Your task to perform on an android device: turn on the 12-hour format for clock Image 0: 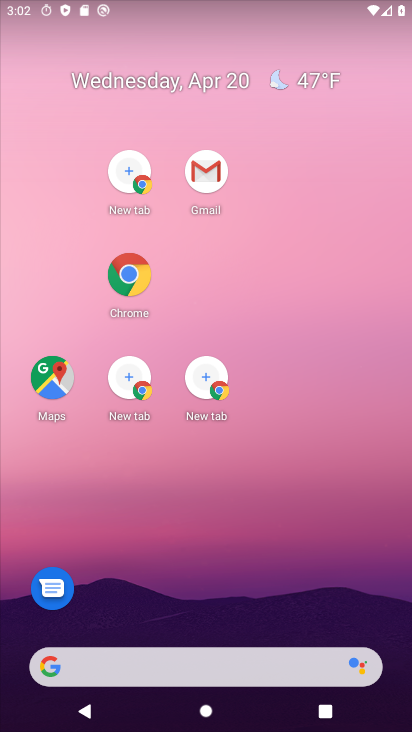
Step 0: drag from (245, 575) to (196, 307)
Your task to perform on an android device: turn on the 12-hour format for clock Image 1: 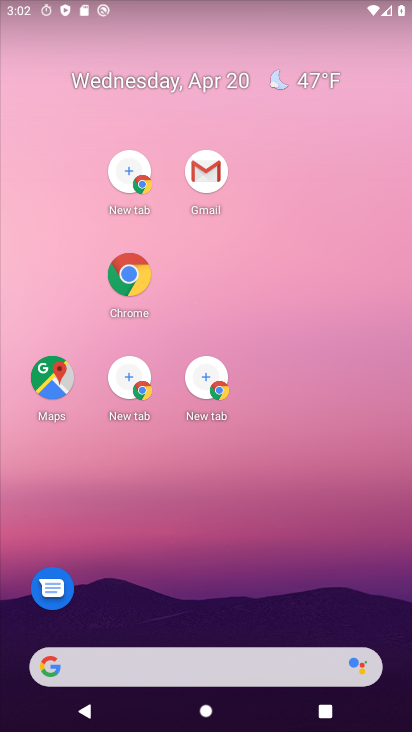
Step 1: click (116, 278)
Your task to perform on an android device: turn on the 12-hour format for clock Image 2: 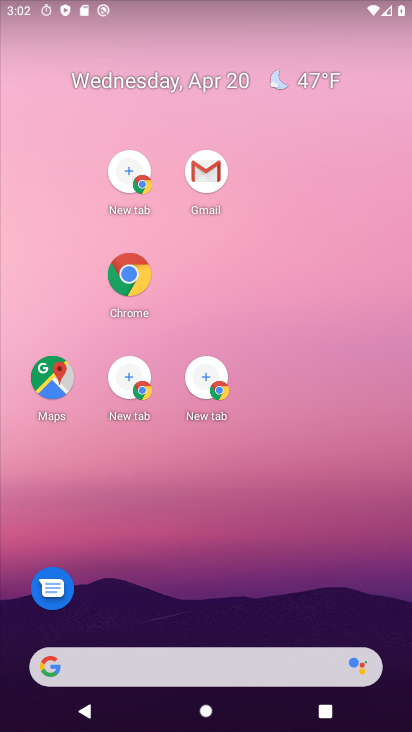
Step 2: click (116, 278)
Your task to perform on an android device: turn on the 12-hour format for clock Image 3: 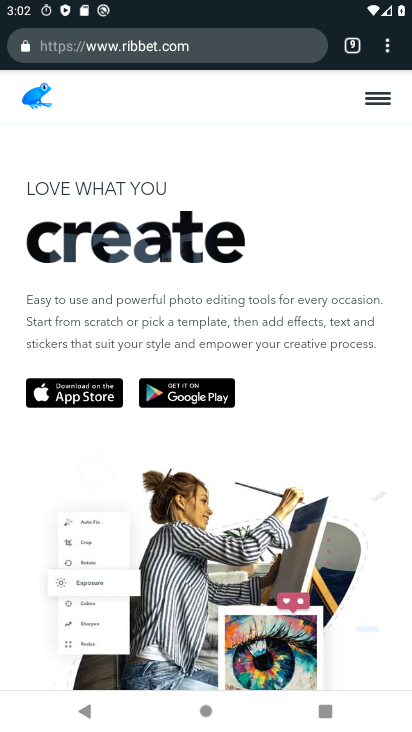
Step 3: drag from (367, 91) to (277, 418)
Your task to perform on an android device: turn on the 12-hour format for clock Image 4: 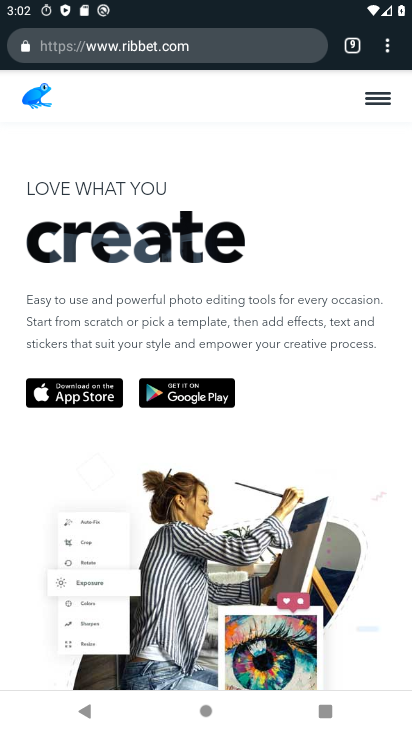
Step 4: click (361, 110)
Your task to perform on an android device: turn on the 12-hour format for clock Image 5: 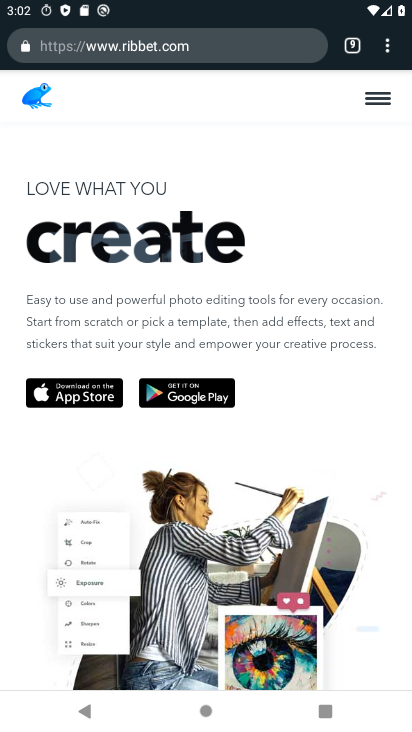
Step 5: click (361, 110)
Your task to perform on an android device: turn on the 12-hour format for clock Image 6: 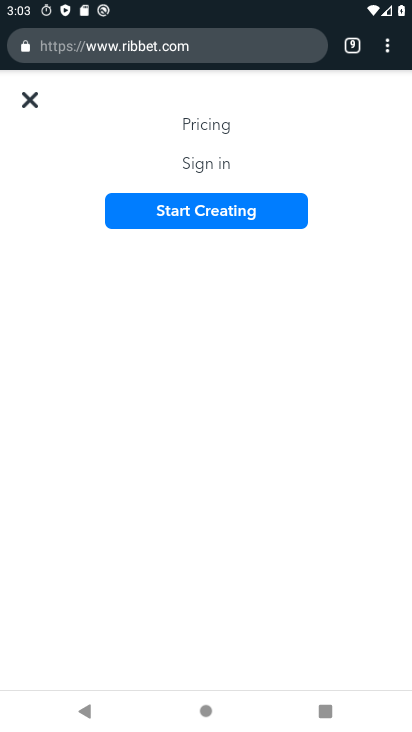
Step 6: click (223, 217)
Your task to perform on an android device: turn on the 12-hour format for clock Image 7: 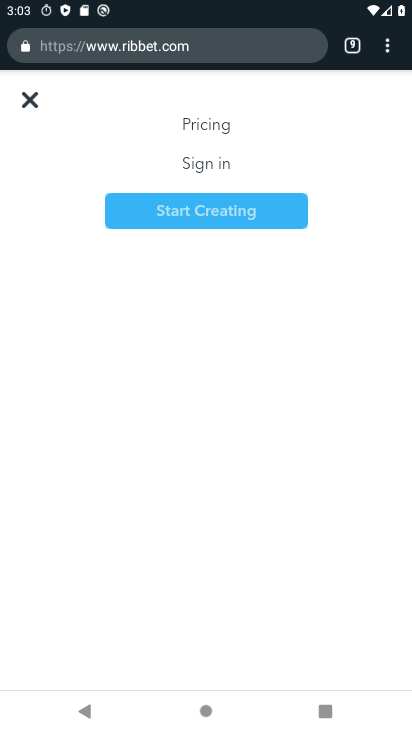
Step 7: click (223, 217)
Your task to perform on an android device: turn on the 12-hour format for clock Image 8: 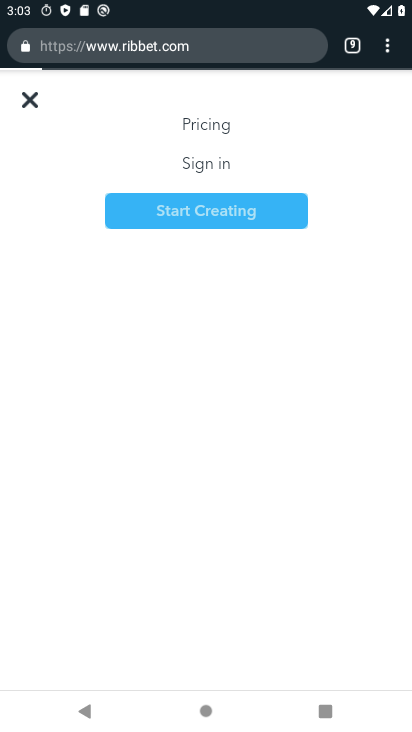
Step 8: click (223, 217)
Your task to perform on an android device: turn on the 12-hour format for clock Image 9: 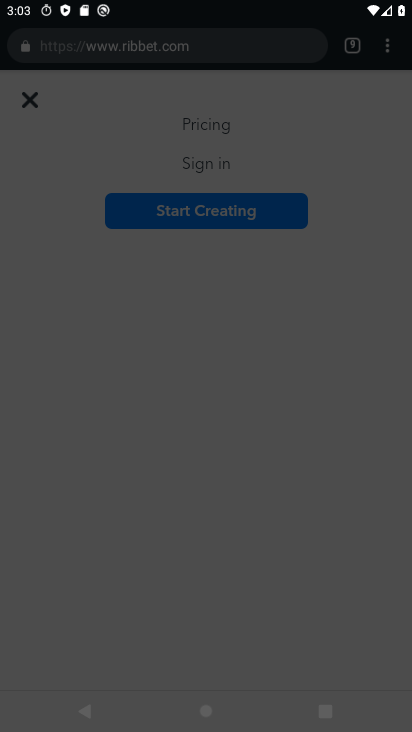
Step 9: click (226, 212)
Your task to perform on an android device: turn on the 12-hour format for clock Image 10: 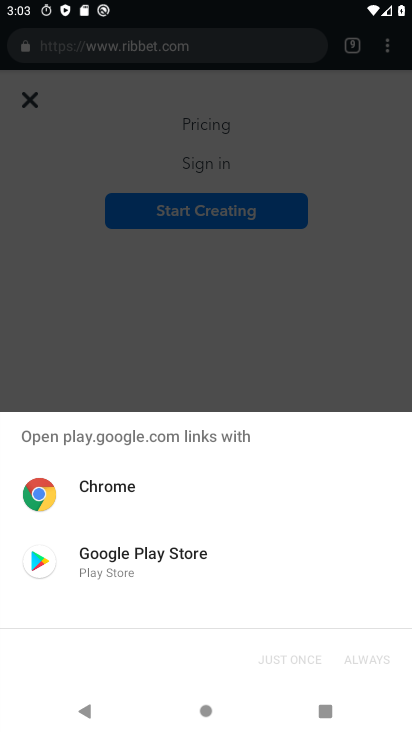
Step 10: click (226, 212)
Your task to perform on an android device: turn on the 12-hour format for clock Image 11: 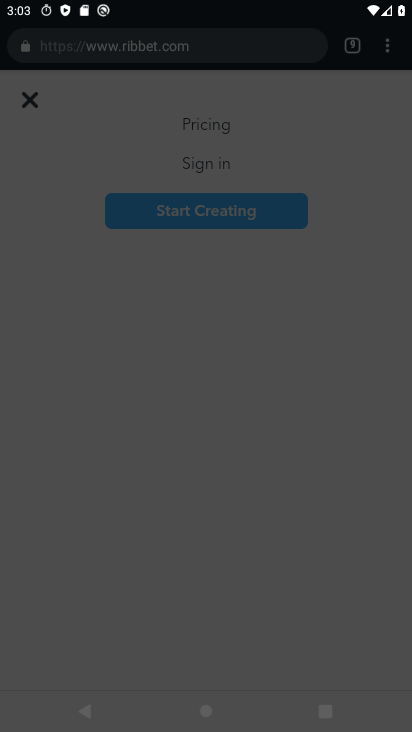
Step 11: click (27, 99)
Your task to perform on an android device: turn on the 12-hour format for clock Image 12: 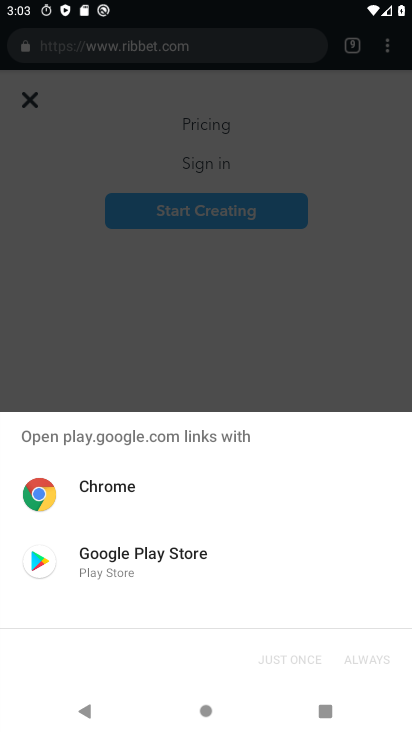
Step 12: click (27, 99)
Your task to perform on an android device: turn on the 12-hour format for clock Image 13: 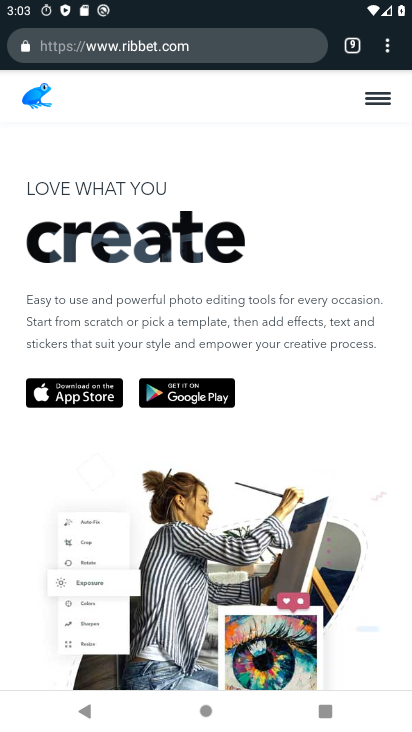
Step 13: click (362, 85)
Your task to perform on an android device: turn on the 12-hour format for clock Image 14: 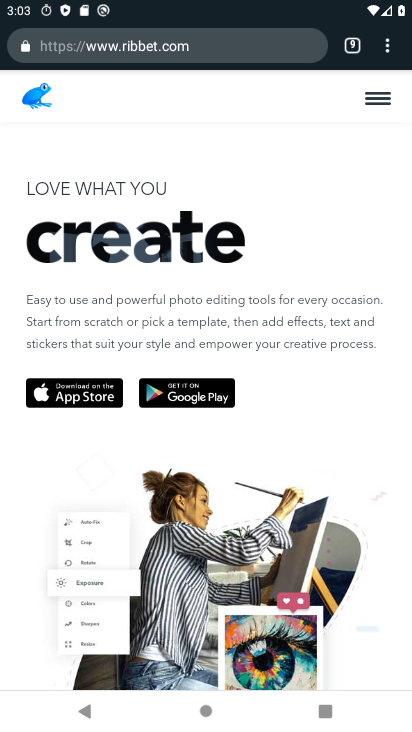
Step 14: click (362, 85)
Your task to perform on an android device: turn on the 12-hour format for clock Image 15: 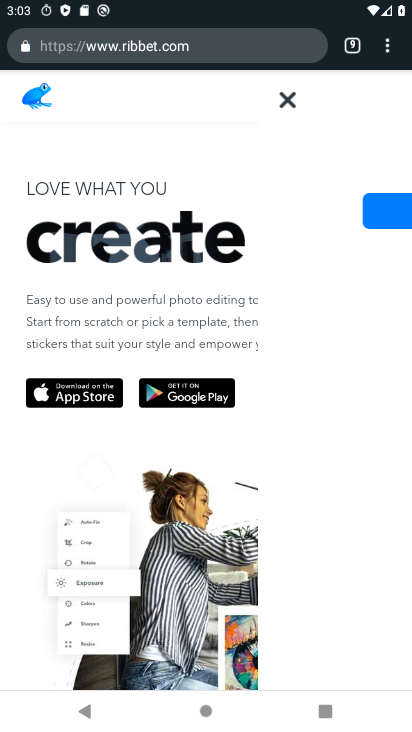
Step 15: click (362, 85)
Your task to perform on an android device: turn on the 12-hour format for clock Image 16: 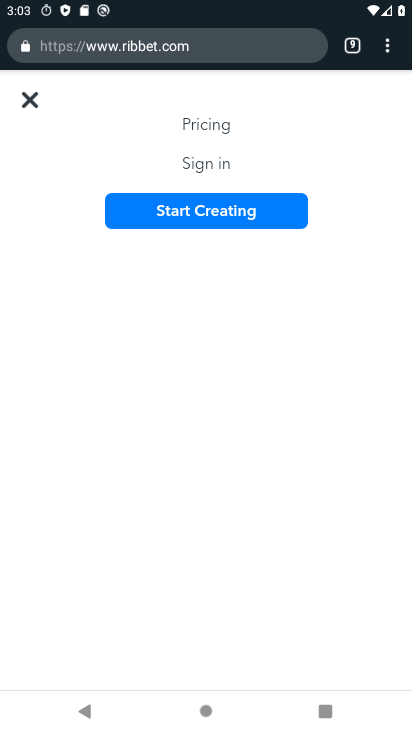
Step 16: click (390, 47)
Your task to perform on an android device: turn on the 12-hour format for clock Image 17: 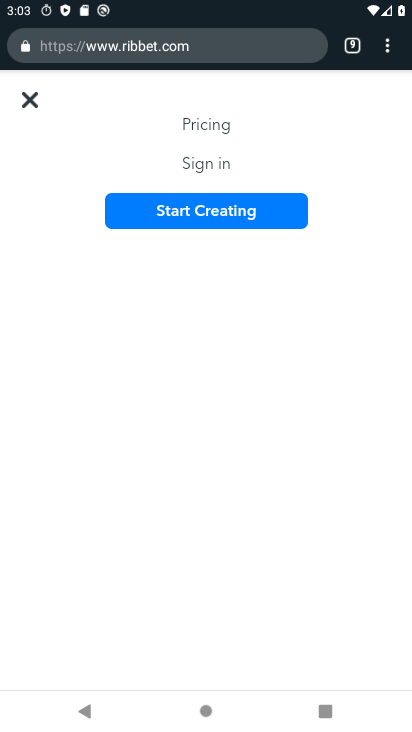
Step 17: click (390, 47)
Your task to perform on an android device: turn on the 12-hour format for clock Image 18: 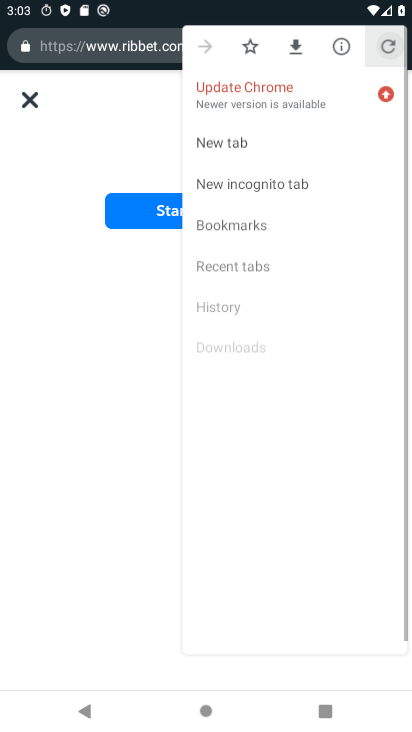
Step 18: click (390, 47)
Your task to perform on an android device: turn on the 12-hour format for clock Image 19: 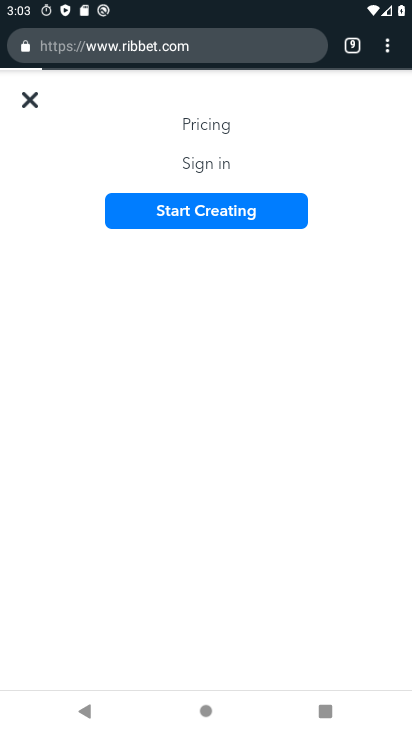
Step 19: click (390, 47)
Your task to perform on an android device: turn on the 12-hour format for clock Image 20: 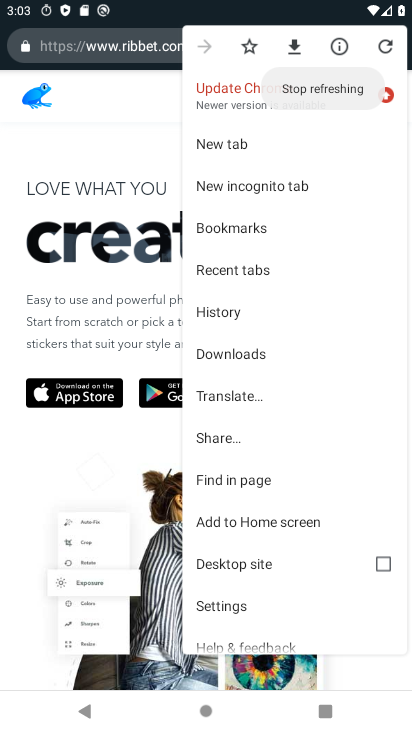
Step 20: click (390, 47)
Your task to perform on an android device: turn on the 12-hour format for clock Image 21: 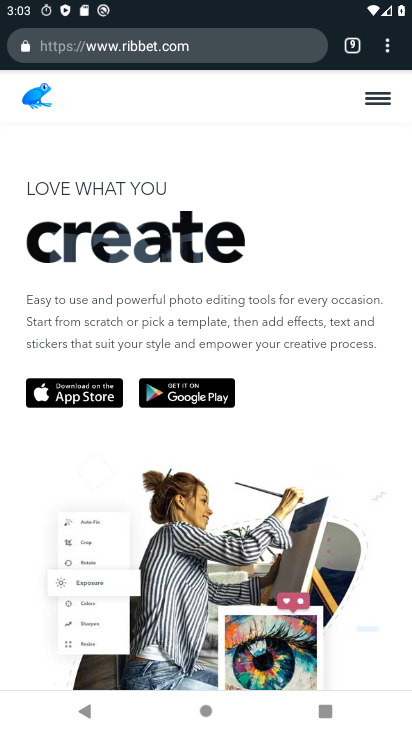
Step 21: press home button
Your task to perform on an android device: turn on the 12-hour format for clock Image 22: 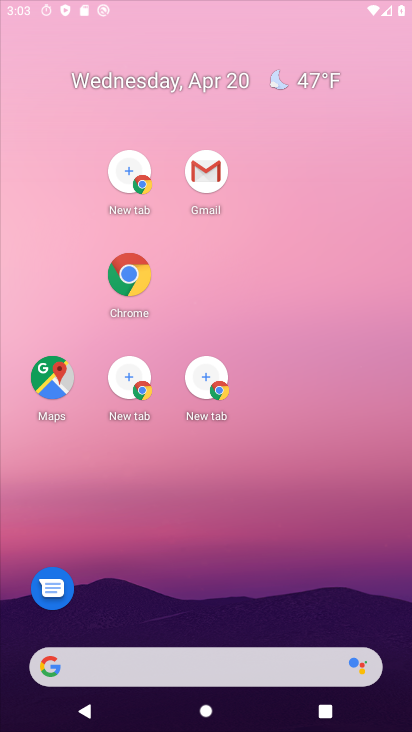
Step 22: press home button
Your task to perform on an android device: turn on the 12-hour format for clock Image 23: 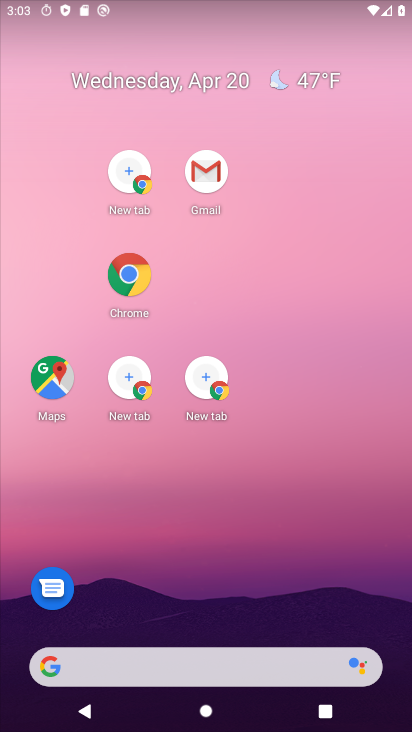
Step 23: press home button
Your task to perform on an android device: turn on the 12-hour format for clock Image 24: 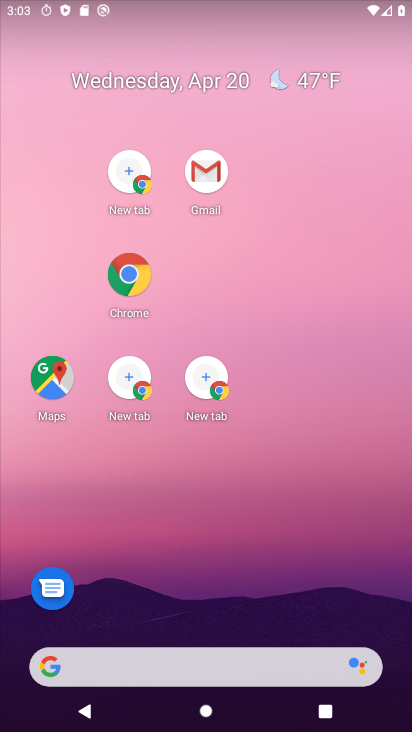
Step 24: drag from (204, 547) to (371, 696)
Your task to perform on an android device: turn on the 12-hour format for clock Image 25: 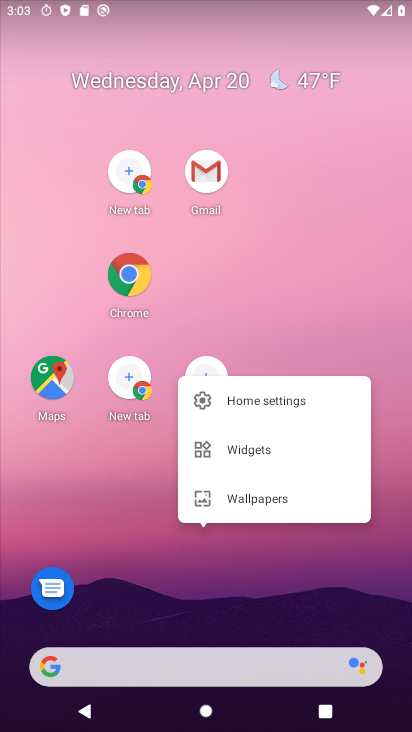
Step 25: click (259, 338)
Your task to perform on an android device: turn on the 12-hour format for clock Image 26: 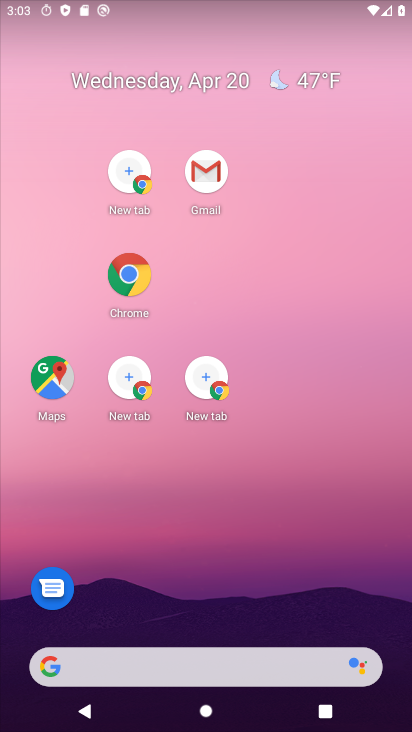
Step 26: drag from (286, 620) to (239, 294)
Your task to perform on an android device: turn on the 12-hour format for clock Image 27: 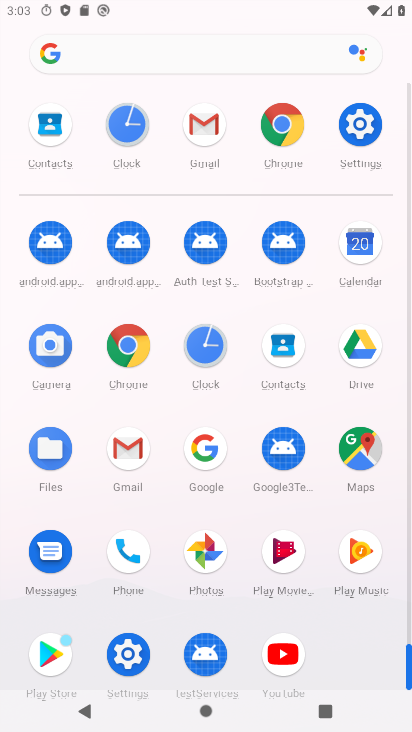
Step 27: click (193, 333)
Your task to perform on an android device: turn on the 12-hour format for clock Image 28: 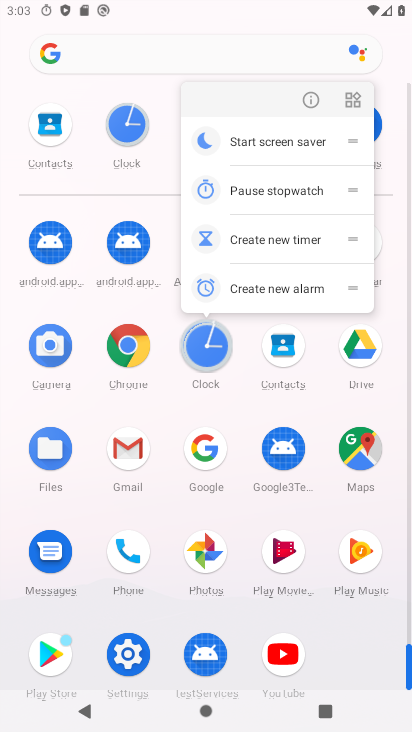
Step 28: click (194, 334)
Your task to perform on an android device: turn on the 12-hour format for clock Image 29: 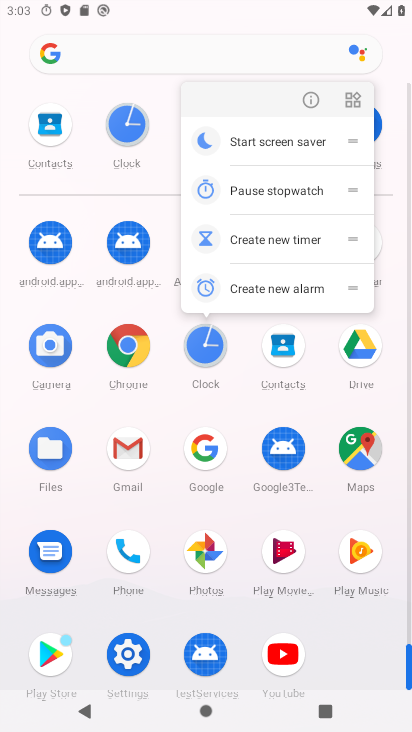
Step 29: click (201, 349)
Your task to perform on an android device: turn on the 12-hour format for clock Image 30: 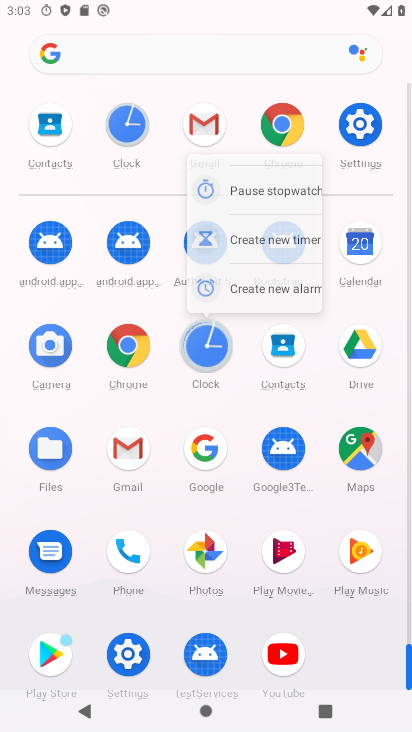
Step 30: click (201, 349)
Your task to perform on an android device: turn on the 12-hour format for clock Image 31: 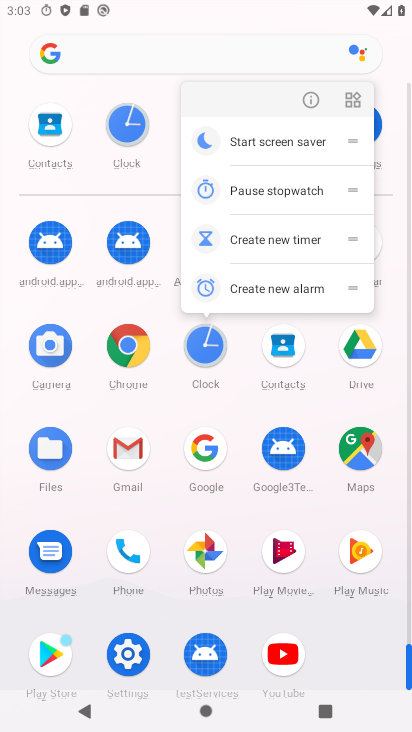
Step 31: click (201, 349)
Your task to perform on an android device: turn on the 12-hour format for clock Image 32: 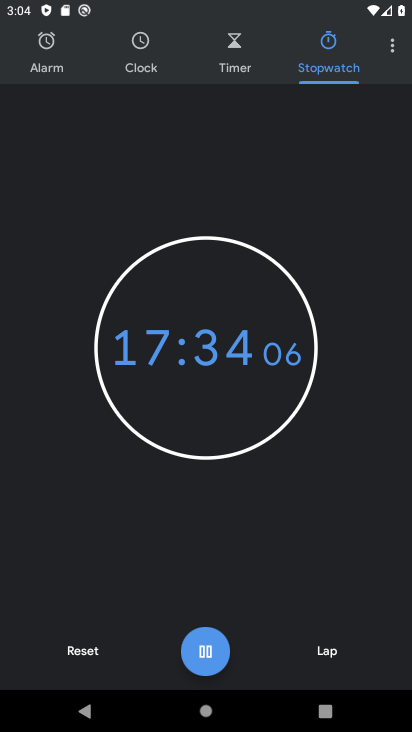
Step 32: click (30, 35)
Your task to perform on an android device: turn on the 12-hour format for clock Image 33: 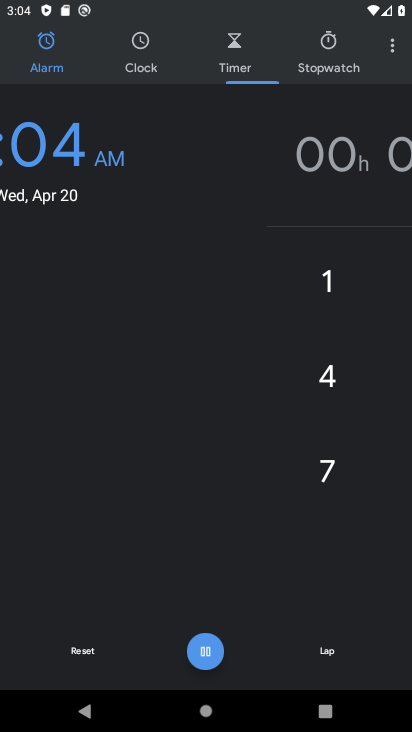
Step 33: click (30, 35)
Your task to perform on an android device: turn on the 12-hour format for clock Image 34: 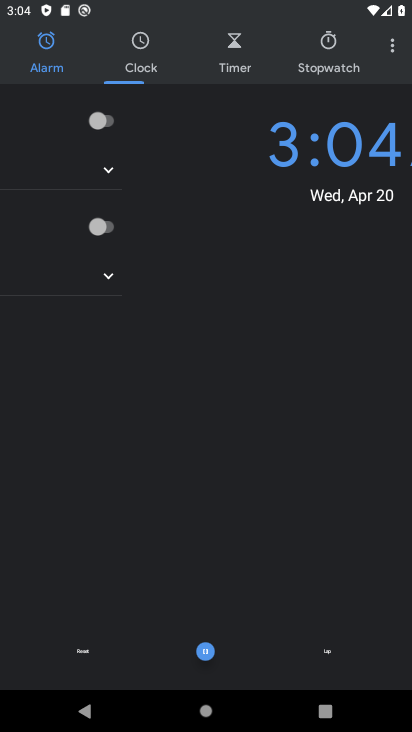
Step 34: click (30, 35)
Your task to perform on an android device: turn on the 12-hour format for clock Image 35: 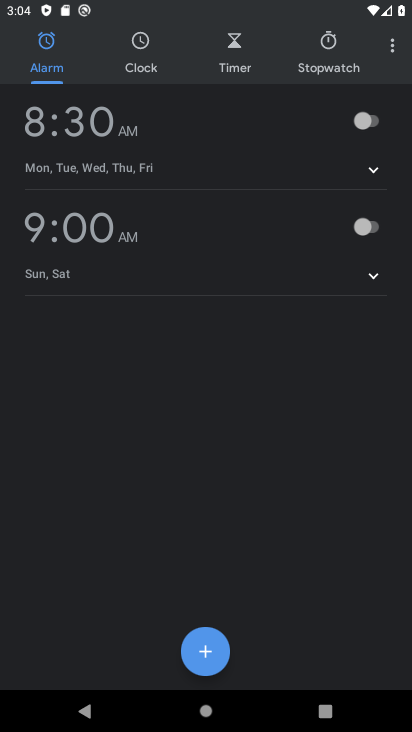
Step 35: click (30, 35)
Your task to perform on an android device: turn on the 12-hour format for clock Image 36: 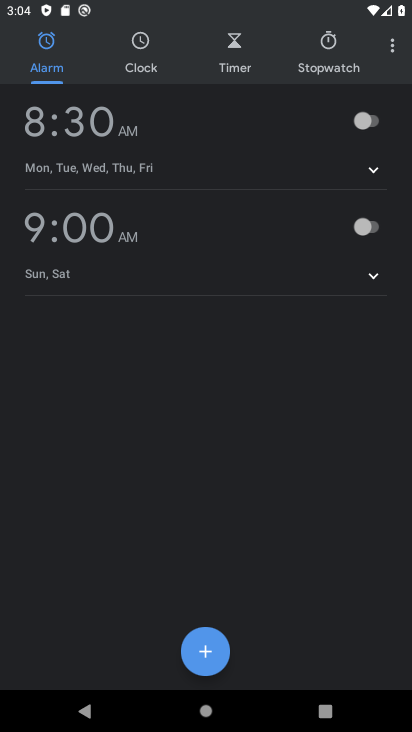
Step 36: click (359, 123)
Your task to perform on an android device: turn on the 12-hour format for clock Image 37: 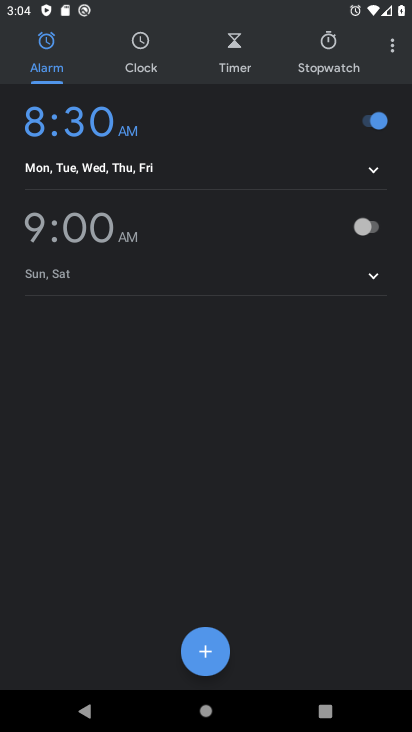
Step 37: task complete